Your task to perform on an android device: Open Youtube and go to the subscriptions tab Image 0: 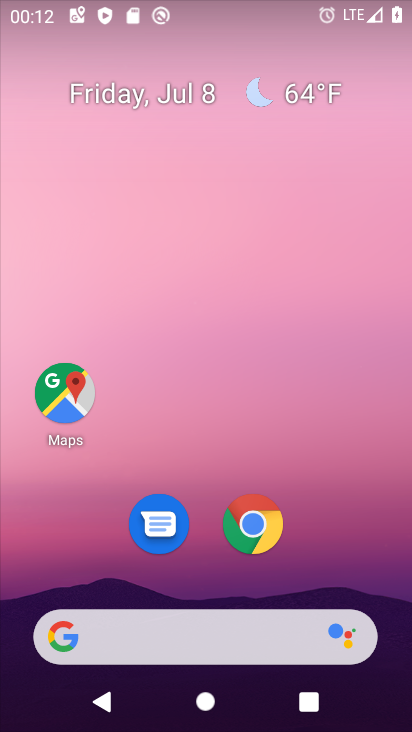
Step 0: drag from (326, 514) to (301, 24)
Your task to perform on an android device: Open Youtube and go to the subscriptions tab Image 1: 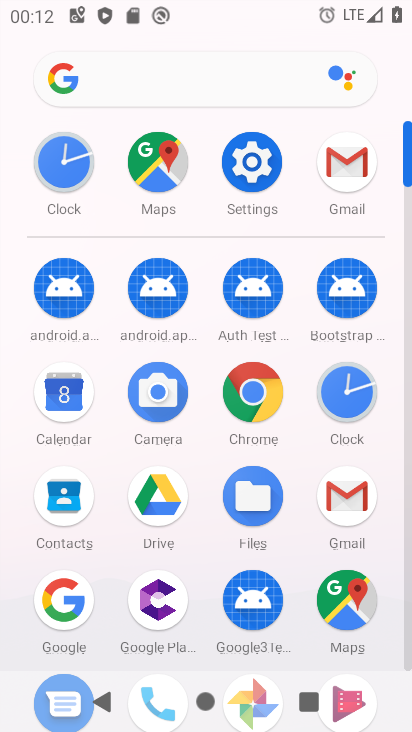
Step 1: drag from (185, 520) to (196, 42)
Your task to perform on an android device: Open Youtube and go to the subscriptions tab Image 2: 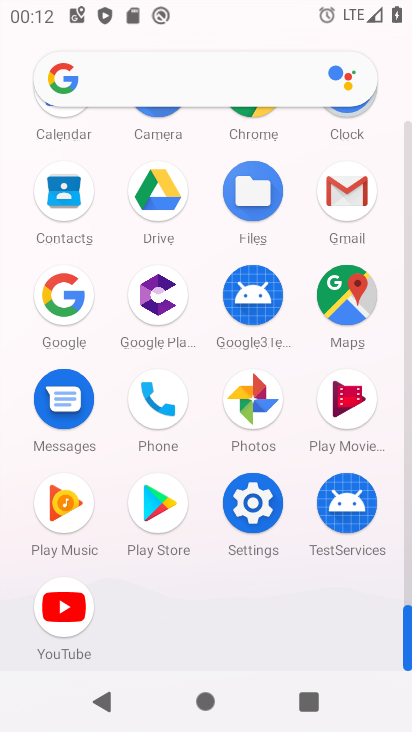
Step 2: click (74, 609)
Your task to perform on an android device: Open Youtube and go to the subscriptions tab Image 3: 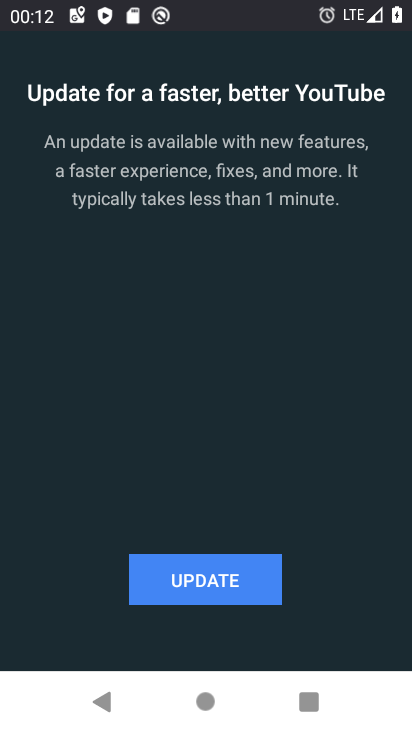
Step 3: click (198, 573)
Your task to perform on an android device: Open Youtube and go to the subscriptions tab Image 4: 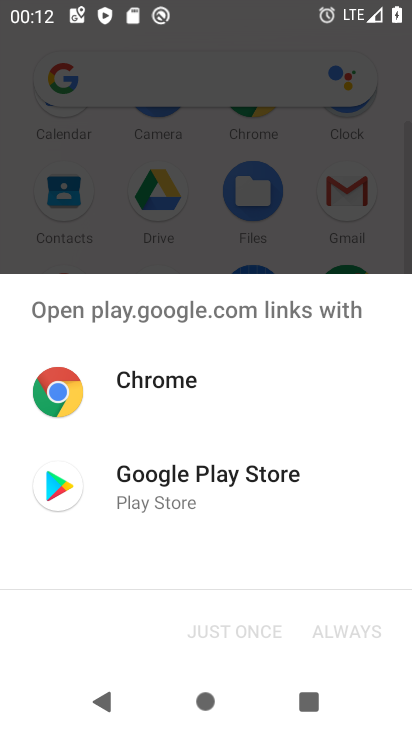
Step 4: click (167, 486)
Your task to perform on an android device: Open Youtube and go to the subscriptions tab Image 5: 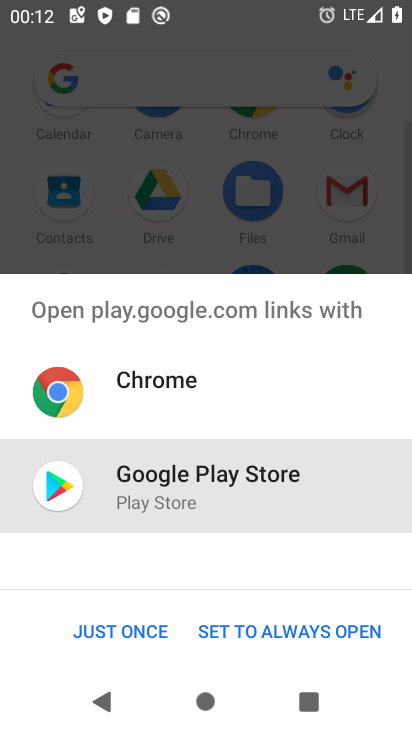
Step 5: click (138, 635)
Your task to perform on an android device: Open Youtube and go to the subscriptions tab Image 6: 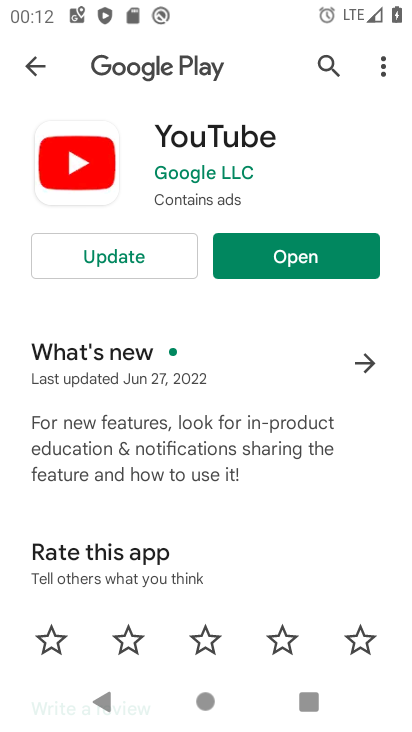
Step 6: click (130, 248)
Your task to perform on an android device: Open Youtube and go to the subscriptions tab Image 7: 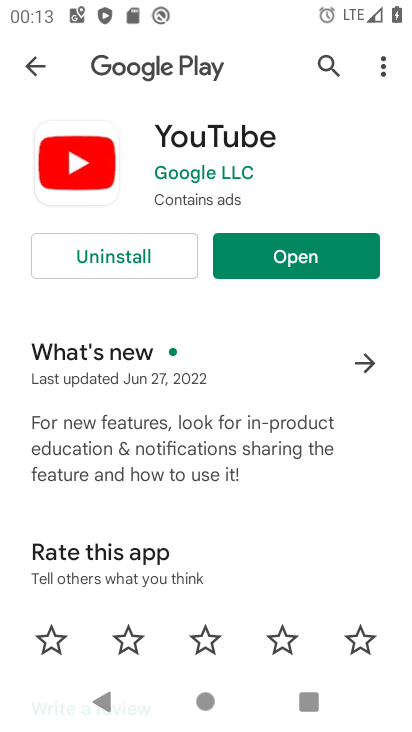
Step 7: click (269, 257)
Your task to perform on an android device: Open Youtube and go to the subscriptions tab Image 8: 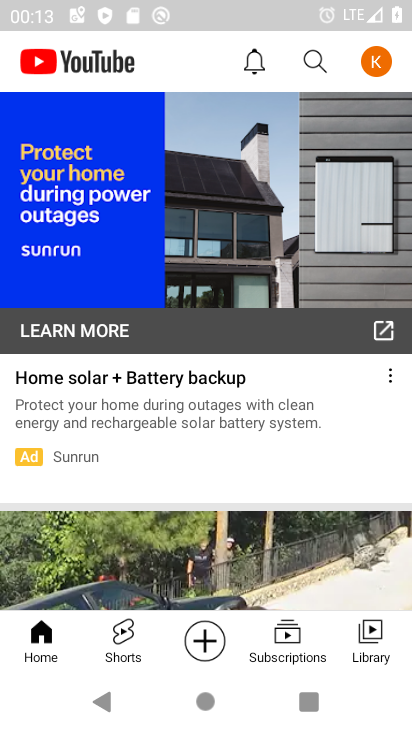
Step 8: click (279, 638)
Your task to perform on an android device: Open Youtube and go to the subscriptions tab Image 9: 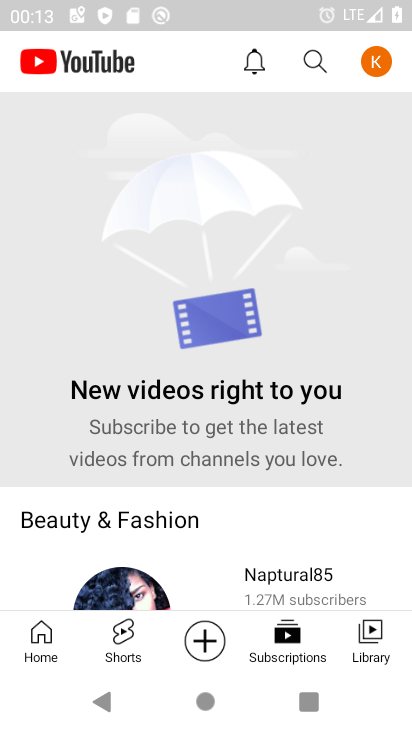
Step 9: task complete